Your task to perform on an android device: What is the recent news? Image 0: 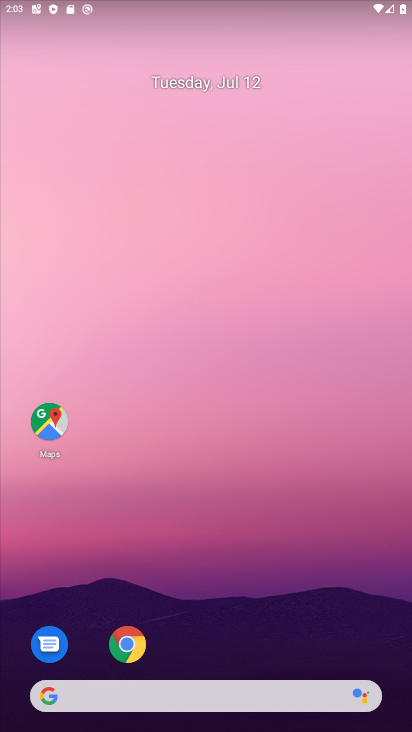
Step 0: drag from (199, 666) to (188, 136)
Your task to perform on an android device: What is the recent news? Image 1: 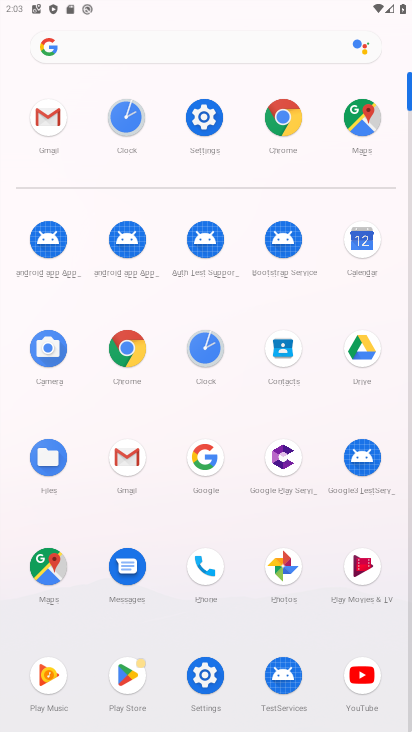
Step 1: click (197, 461)
Your task to perform on an android device: What is the recent news? Image 2: 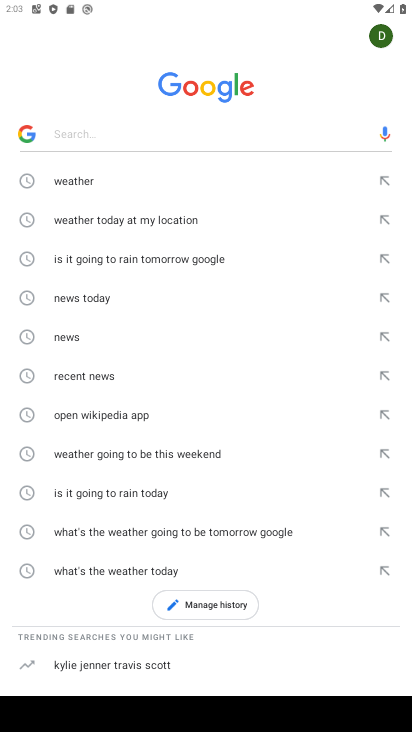
Step 2: click (93, 379)
Your task to perform on an android device: What is the recent news? Image 3: 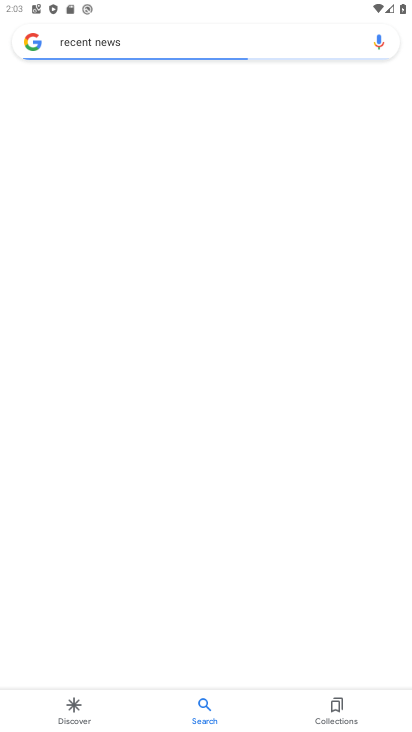
Step 3: drag from (92, 237) to (97, 464)
Your task to perform on an android device: What is the recent news? Image 4: 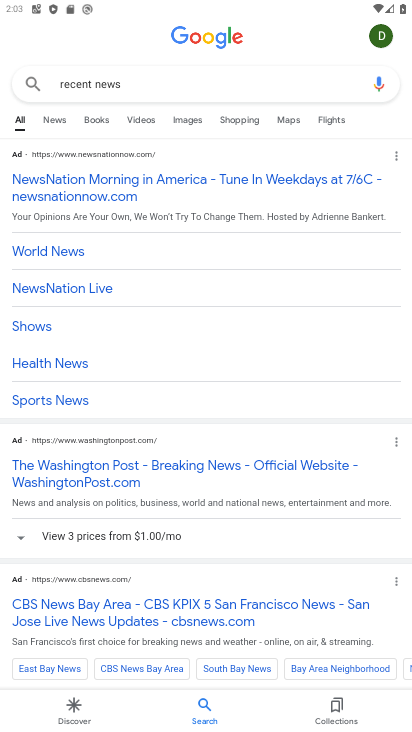
Step 4: click (56, 120)
Your task to perform on an android device: What is the recent news? Image 5: 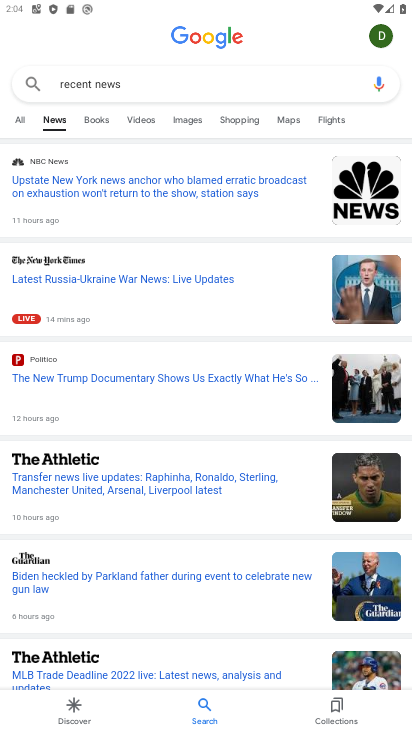
Step 5: task complete